Your task to perform on an android device: find photos in the google photos app Image 0: 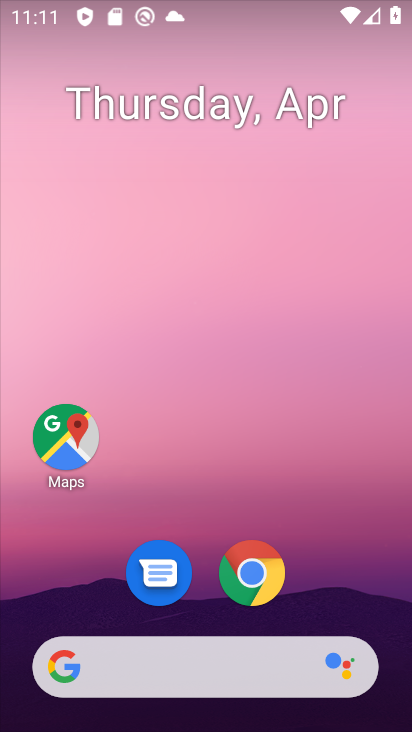
Step 0: drag from (320, 557) to (292, 103)
Your task to perform on an android device: find photos in the google photos app Image 1: 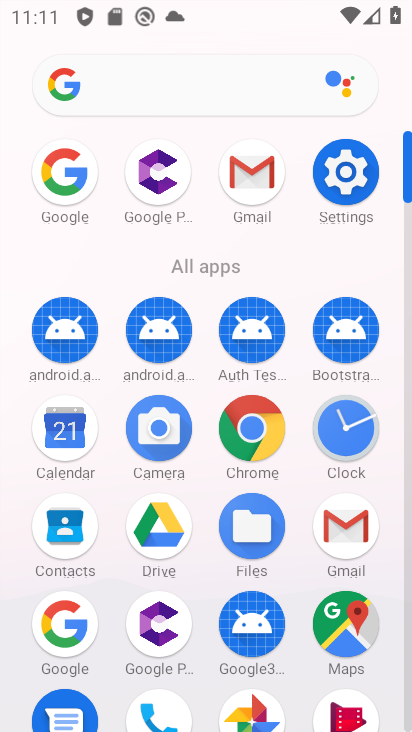
Step 1: click (240, 695)
Your task to perform on an android device: find photos in the google photos app Image 2: 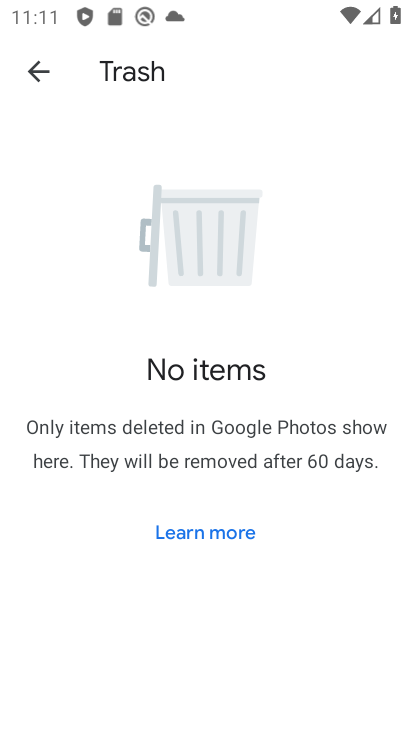
Step 2: click (35, 70)
Your task to perform on an android device: find photos in the google photos app Image 3: 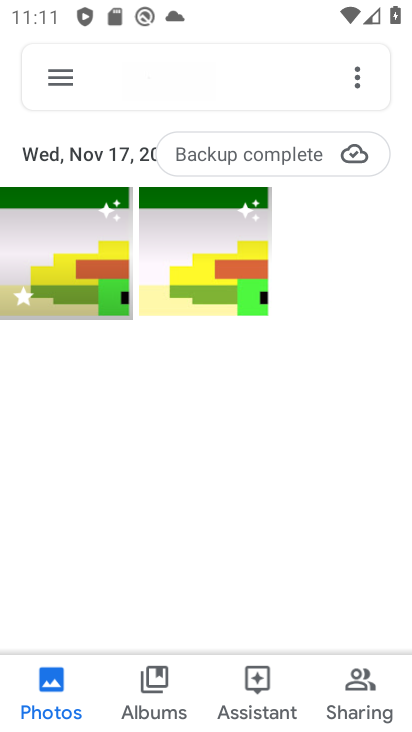
Step 3: task complete